Your task to perform on an android device: Open Amazon Image 0: 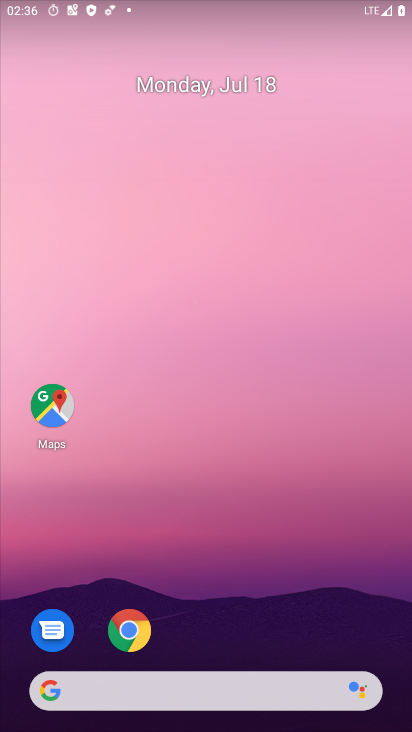
Step 0: click (213, 682)
Your task to perform on an android device: Open Amazon Image 1: 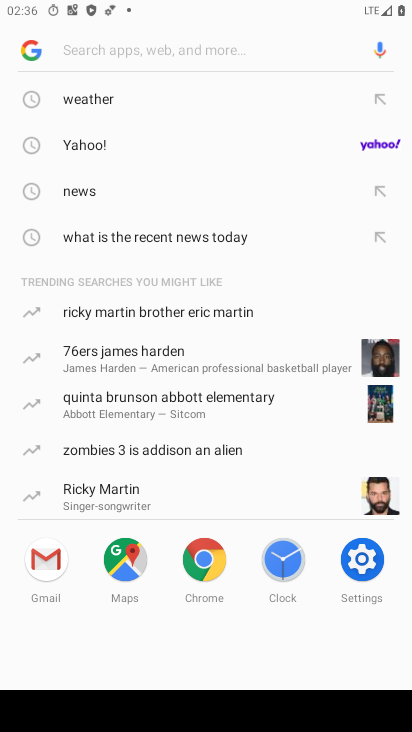
Step 1: type "amazon"
Your task to perform on an android device: Open Amazon Image 2: 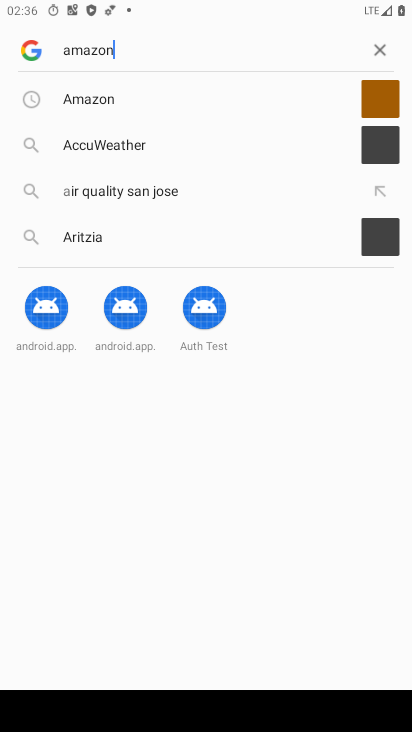
Step 2: type ""
Your task to perform on an android device: Open Amazon Image 3: 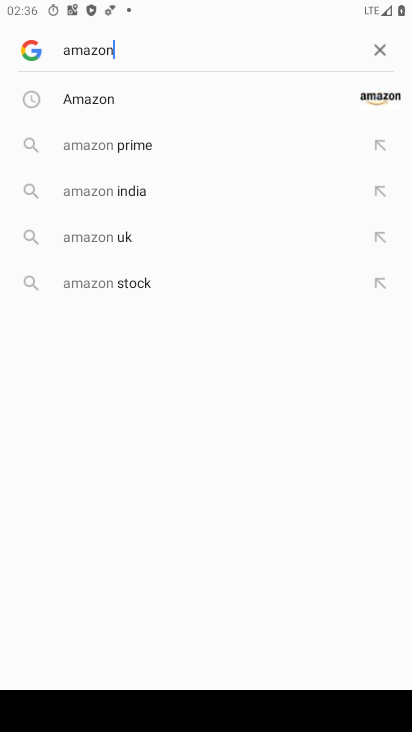
Step 3: click (289, 104)
Your task to perform on an android device: Open Amazon Image 4: 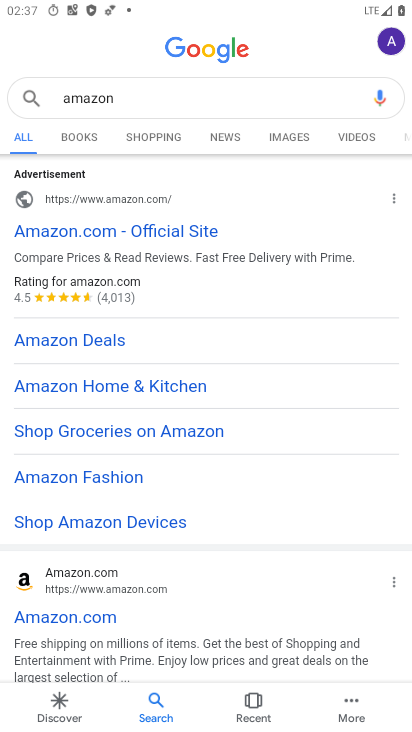
Step 4: task complete